Your task to perform on an android device: toggle show notifications on the lock screen Image 0: 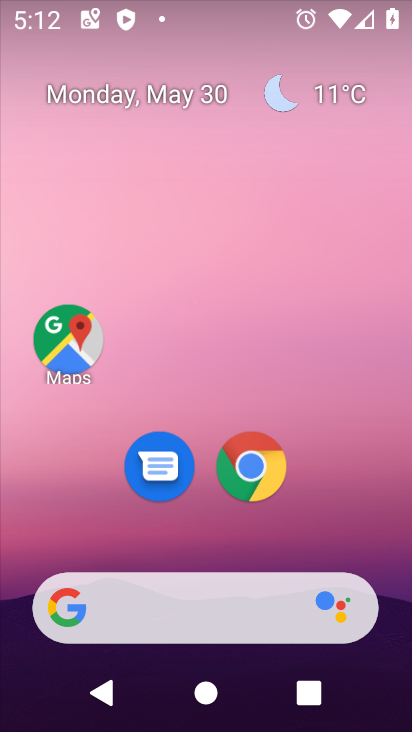
Step 0: drag from (342, 542) to (300, 186)
Your task to perform on an android device: toggle show notifications on the lock screen Image 1: 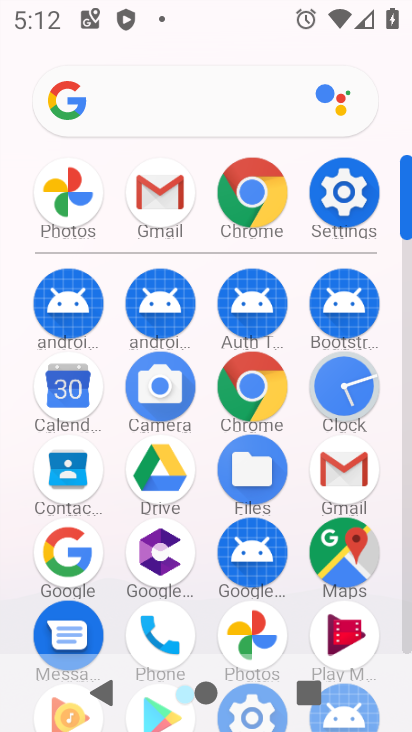
Step 1: click (342, 191)
Your task to perform on an android device: toggle show notifications on the lock screen Image 2: 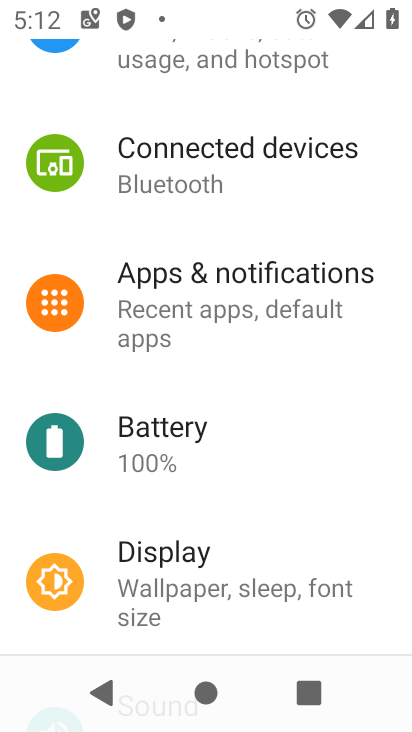
Step 2: drag from (240, 147) to (367, 665)
Your task to perform on an android device: toggle show notifications on the lock screen Image 3: 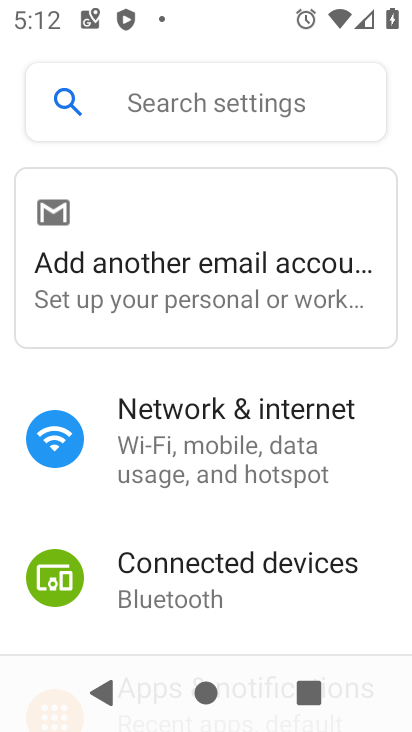
Step 3: drag from (222, 478) to (233, 261)
Your task to perform on an android device: toggle show notifications on the lock screen Image 4: 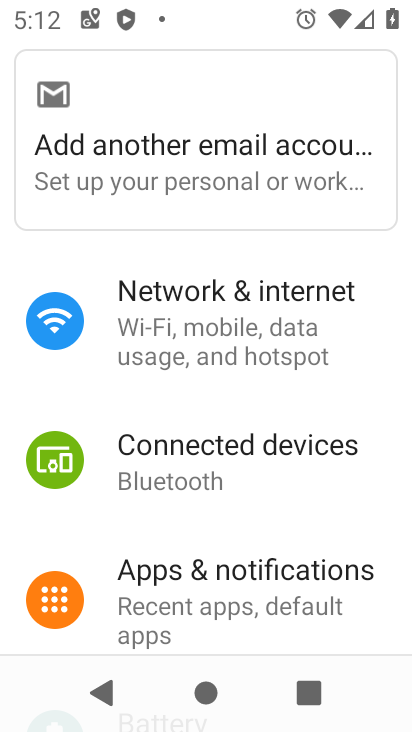
Step 4: click (209, 575)
Your task to perform on an android device: toggle show notifications on the lock screen Image 5: 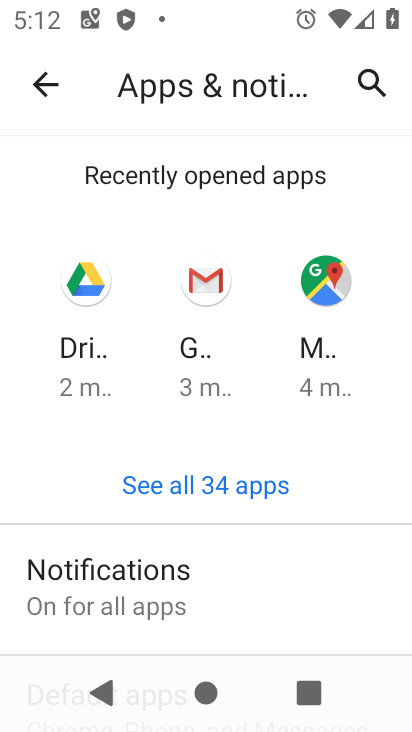
Step 5: drag from (235, 562) to (186, 141)
Your task to perform on an android device: toggle show notifications on the lock screen Image 6: 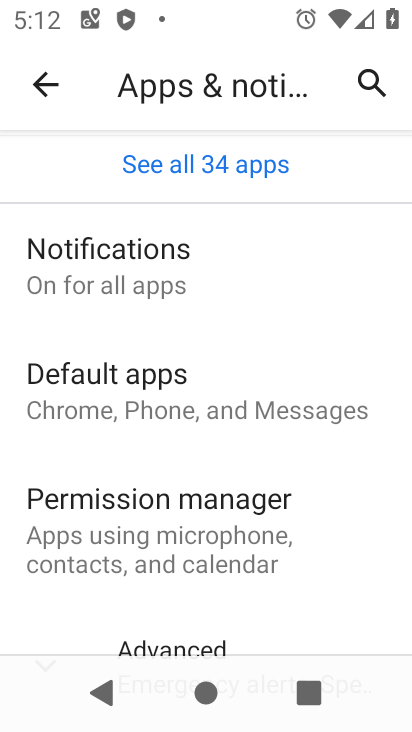
Step 6: click (135, 258)
Your task to perform on an android device: toggle show notifications on the lock screen Image 7: 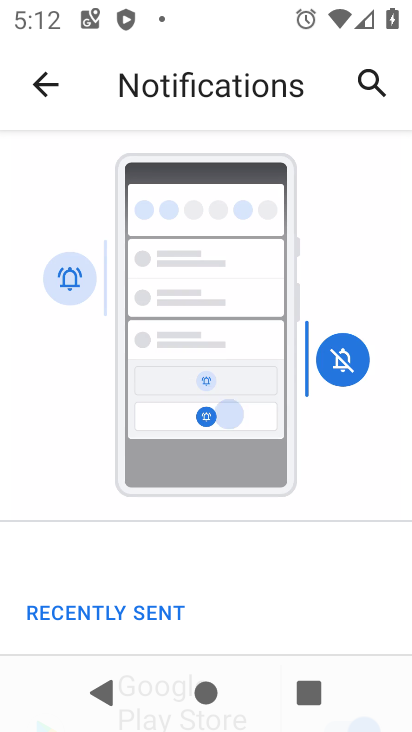
Step 7: drag from (325, 586) to (195, 214)
Your task to perform on an android device: toggle show notifications on the lock screen Image 8: 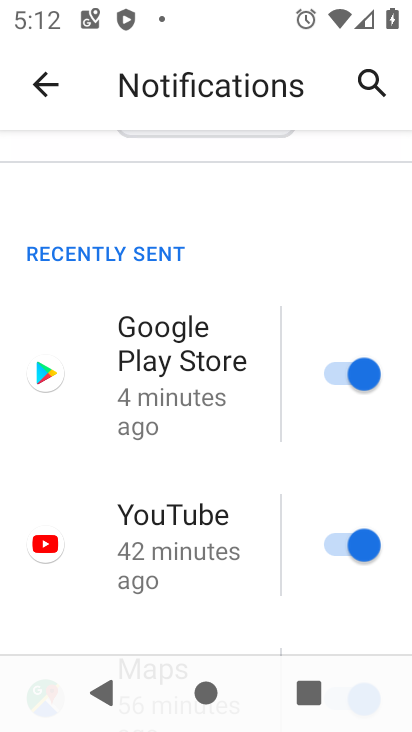
Step 8: drag from (224, 430) to (217, 192)
Your task to perform on an android device: toggle show notifications on the lock screen Image 9: 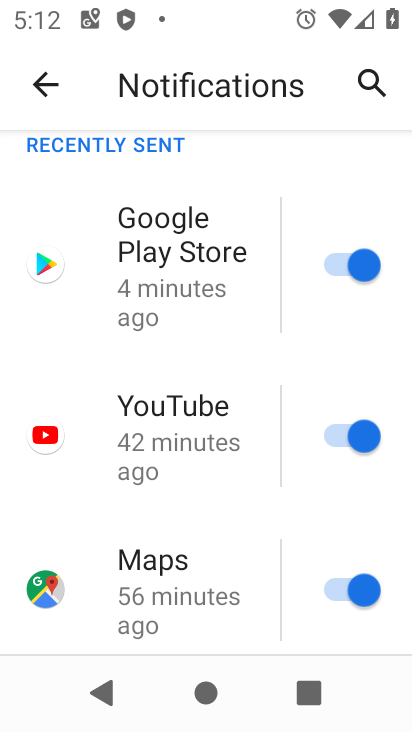
Step 9: drag from (178, 585) to (189, 85)
Your task to perform on an android device: toggle show notifications on the lock screen Image 10: 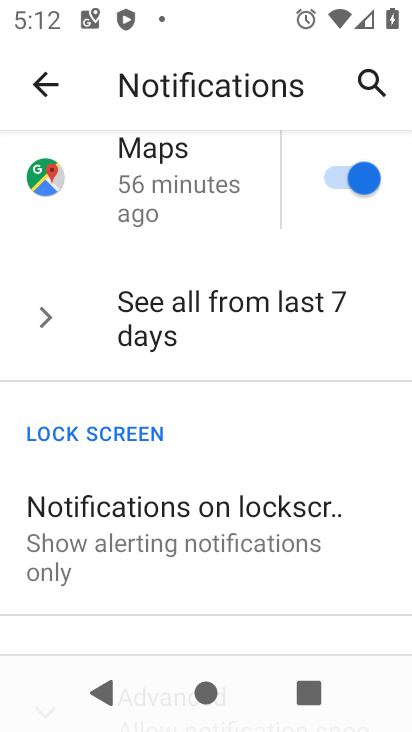
Step 10: click (286, 496)
Your task to perform on an android device: toggle show notifications on the lock screen Image 11: 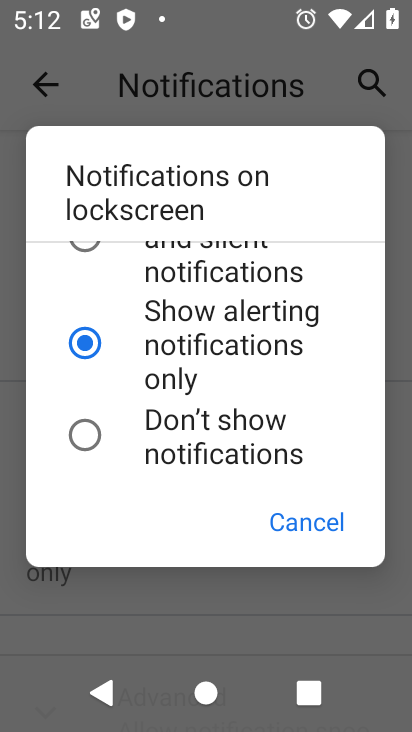
Step 11: click (185, 451)
Your task to perform on an android device: toggle show notifications on the lock screen Image 12: 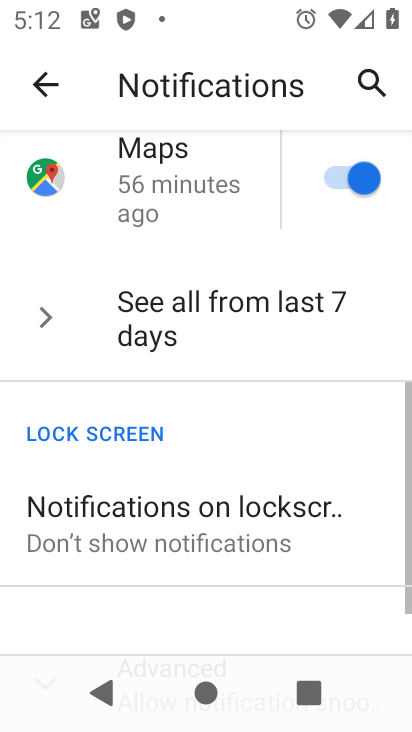
Step 12: task complete